Your task to perform on an android device: Search for seafood restaurants on Google Maps Image 0: 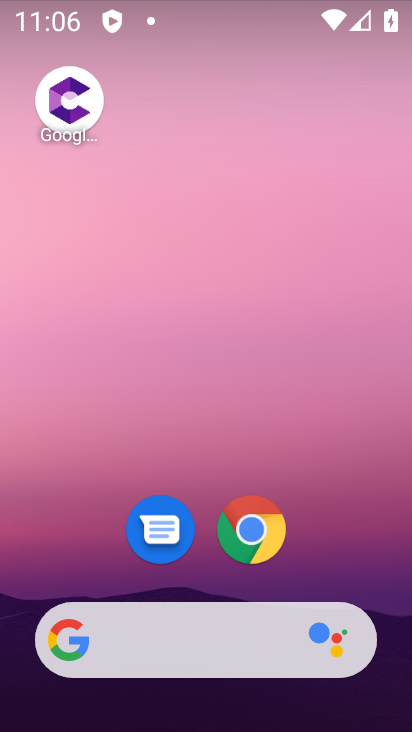
Step 0: drag from (227, 681) to (294, 102)
Your task to perform on an android device: Search for seafood restaurants on Google Maps Image 1: 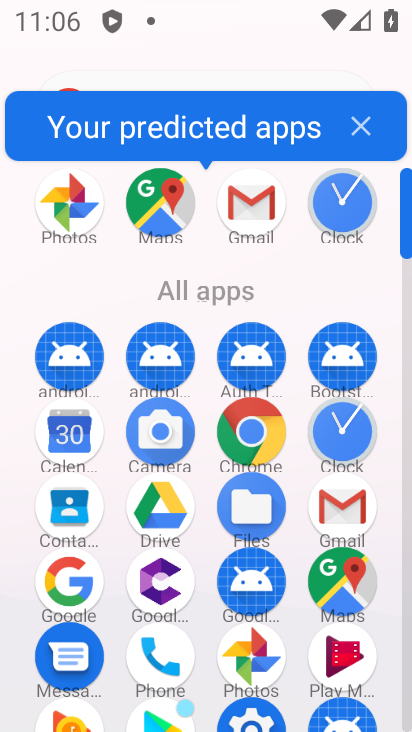
Step 1: click (172, 226)
Your task to perform on an android device: Search for seafood restaurants on Google Maps Image 2: 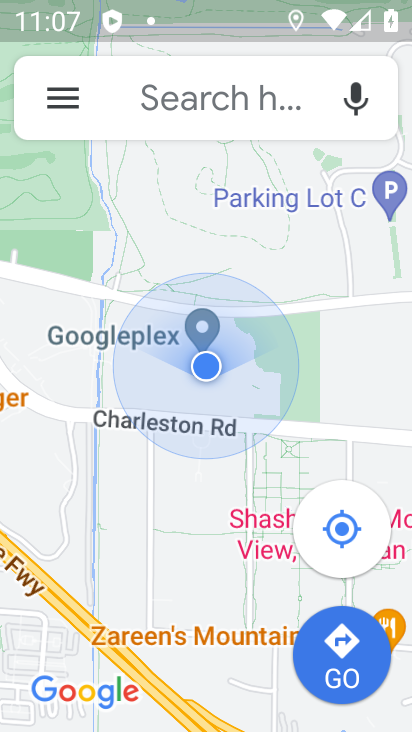
Step 2: task complete